Your task to perform on an android device: move a message to another label in the gmail app Image 0: 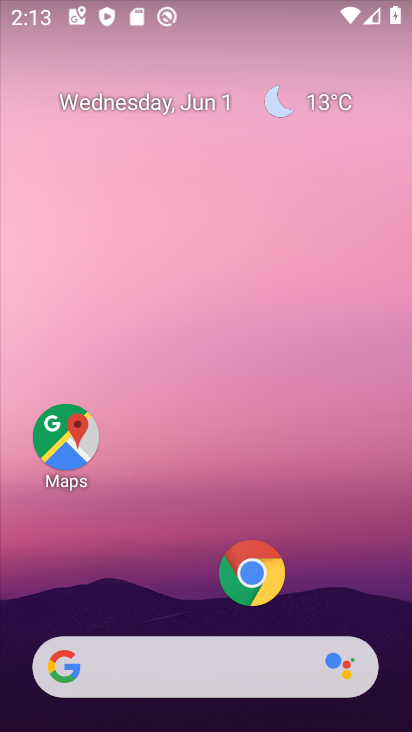
Step 0: drag from (229, 619) to (234, 70)
Your task to perform on an android device: move a message to another label in the gmail app Image 1: 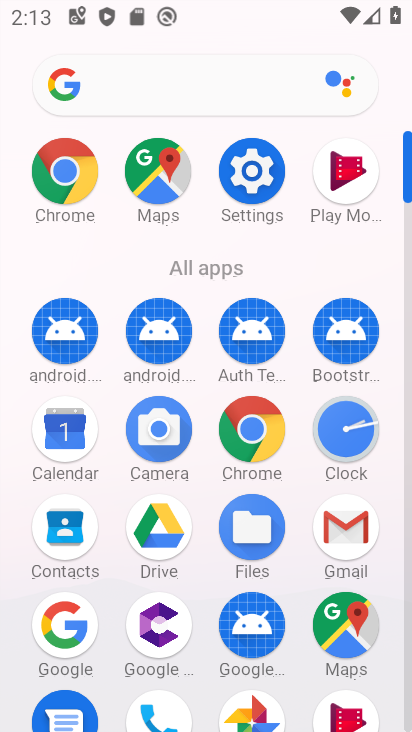
Step 1: click (352, 544)
Your task to perform on an android device: move a message to another label in the gmail app Image 2: 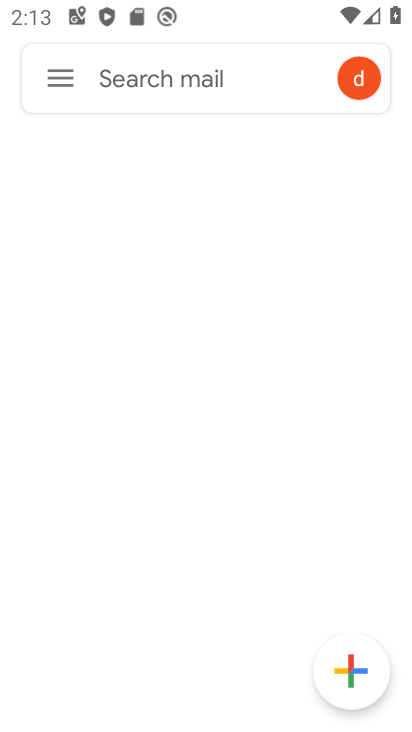
Step 2: click (62, 74)
Your task to perform on an android device: move a message to another label in the gmail app Image 3: 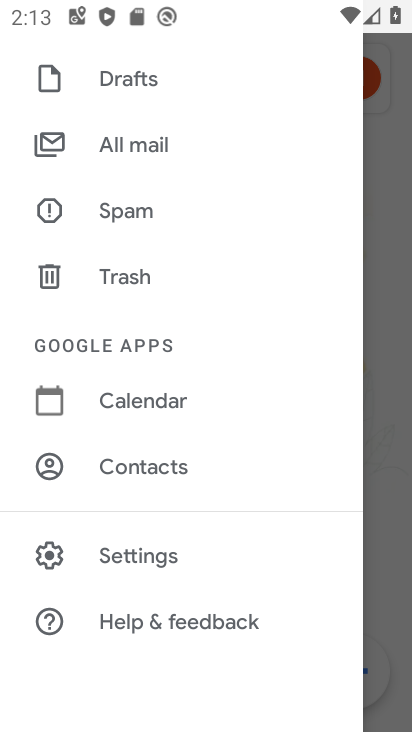
Step 3: click (124, 146)
Your task to perform on an android device: move a message to another label in the gmail app Image 4: 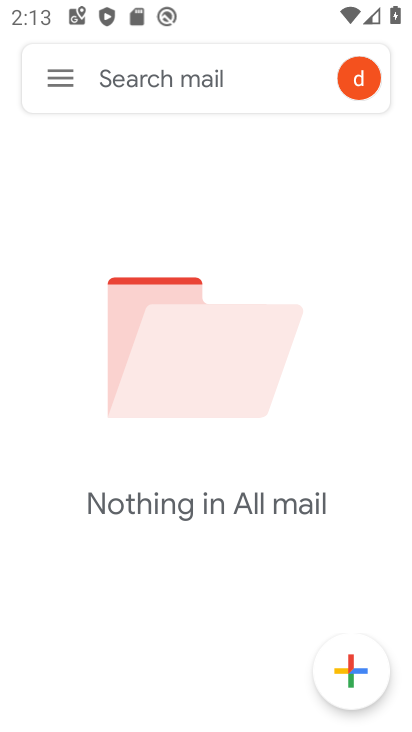
Step 4: task complete